Your task to perform on an android device: open wifi settings Image 0: 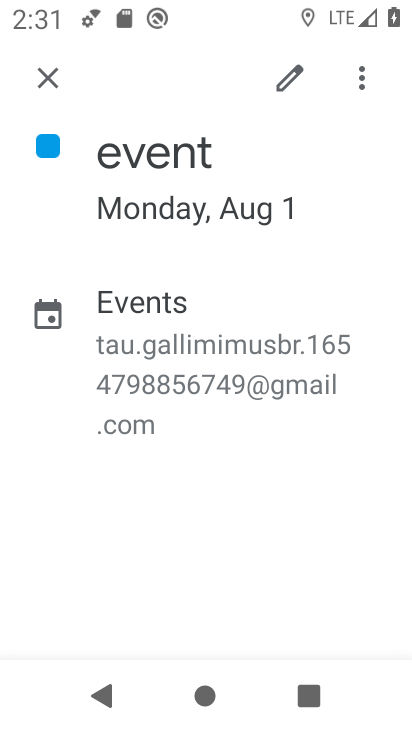
Step 0: press home button
Your task to perform on an android device: open wifi settings Image 1: 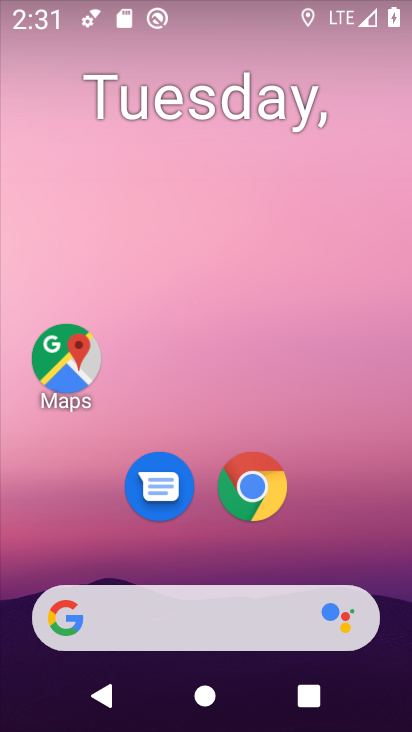
Step 1: drag from (346, 524) to (350, 111)
Your task to perform on an android device: open wifi settings Image 2: 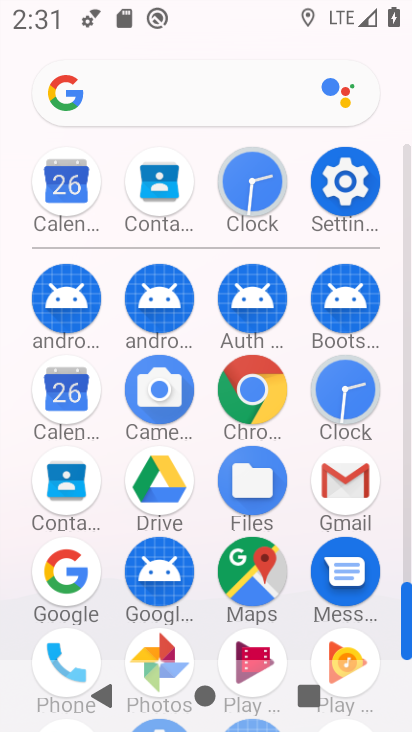
Step 2: click (345, 189)
Your task to perform on an android device: open wifi settings Image 3: 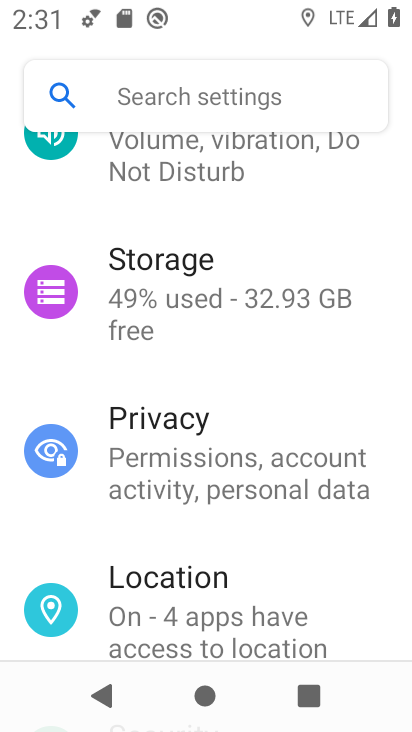
Step 3: drag from (364, 224) to (365, 282)
Your task to perform on an android device: open wifi settings Image 4: 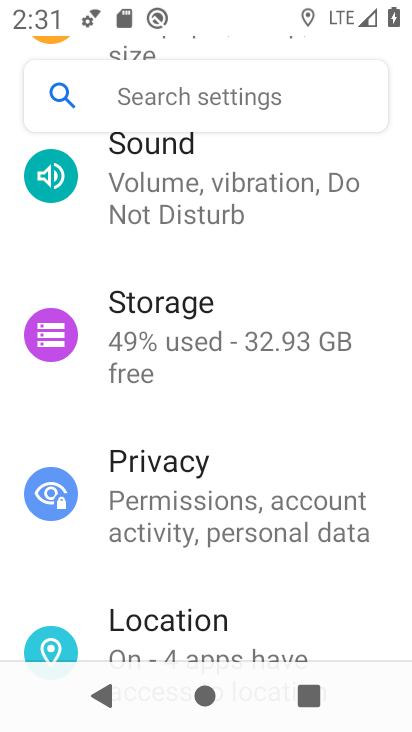
Step 4: drag from (383, 194) to (380, 281)
Your task to perform on an android device: open wifi settings Image 5: 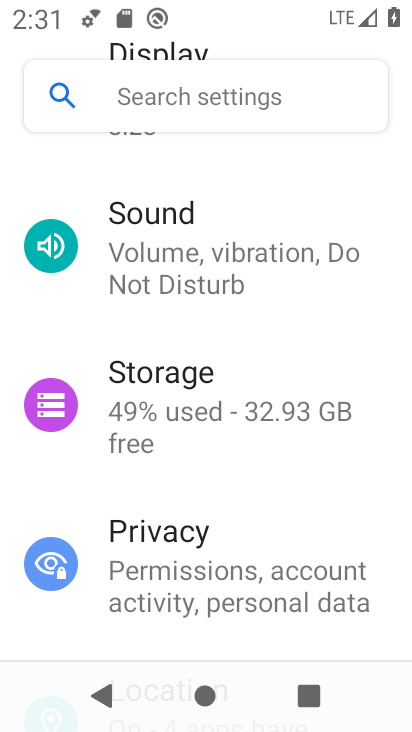
Step 5: drag from (374, 278) to (373, 369)
Your task to perform on an android device: open wifi settings Image 6: 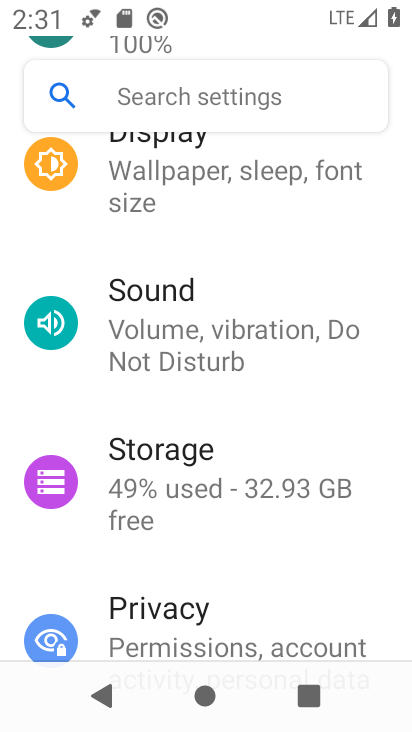
Step 6: drag from (373, 240) to (377, 322)
Your task to perform on an android device: open wifi settings Image 7: 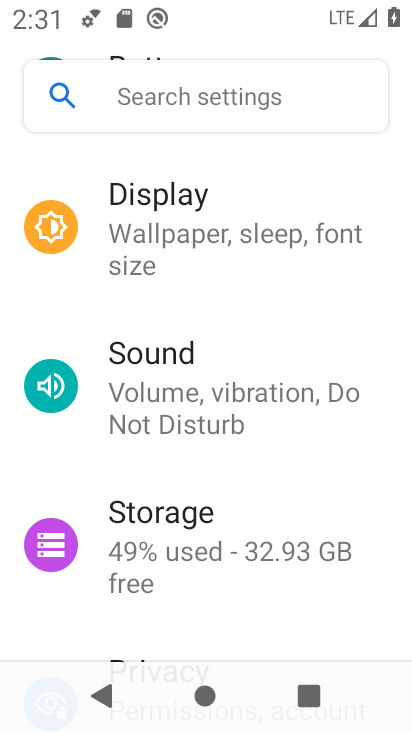
Step 7: drag from (370, 203) to (371, 273)
Your task to perform on an android device: open wifi settings Image 8: 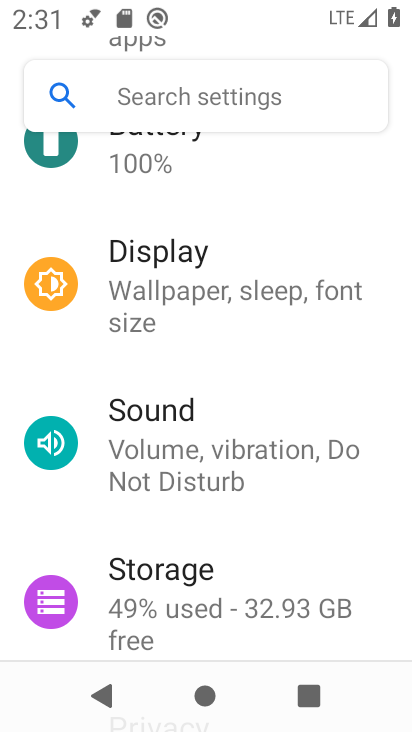
Step 8: drag from (371, 190) to (373, 264)
Your task to perform on an android device: open wifi settings Image 9: 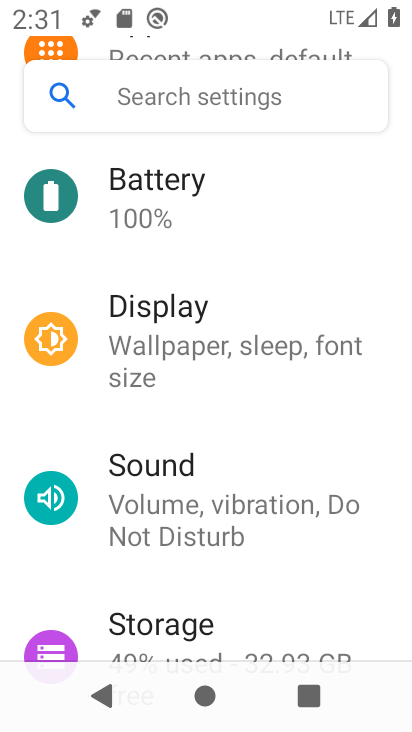
Step 9: drag from (372, 166) to (375, 248)
Your task to perform on an android device: open wifi settings Image 10: 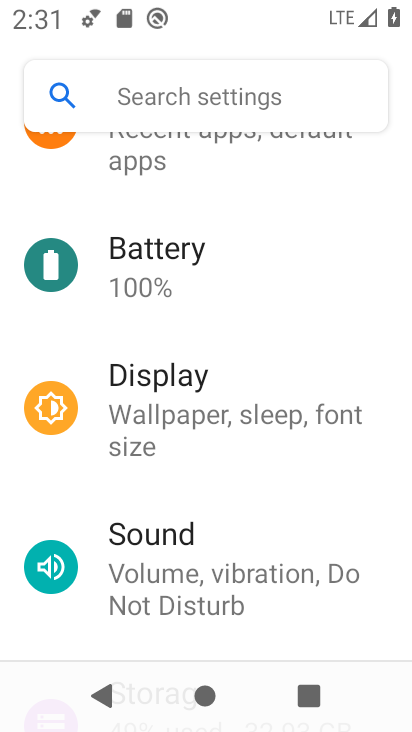
Step 10: drag from (376, 158) to (378, 250)
Your task to perform on an android device: open wifi settings Image 11: 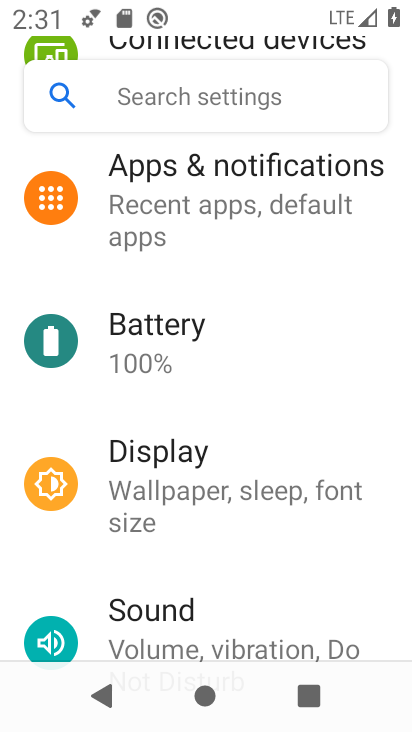
Step 11: drag from (376, 183) to (377, 290)
Your task to perform on an android device: open wifi settings Image 12: 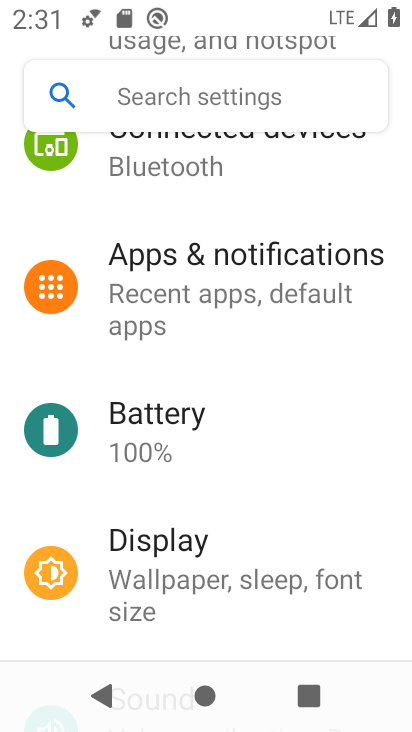
Step 12: drag from (366, 171) to (367, 291)
Your task to perform on an android device: open wifi settings Image 13: 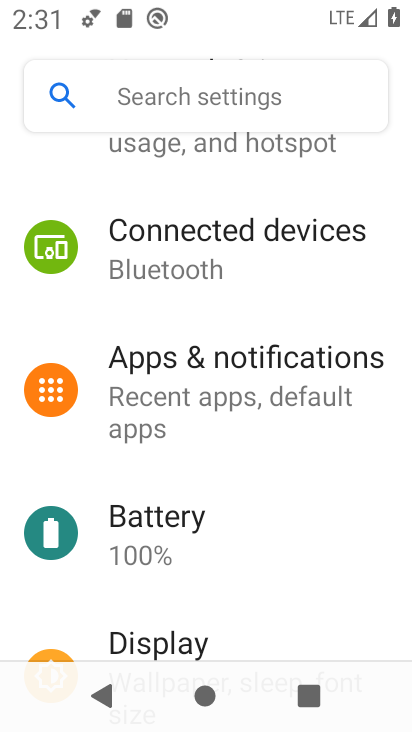
Step 13: drag from (365, 168) to (365, 301)
Your task to perform on an android device: open wifi settings Image 14: 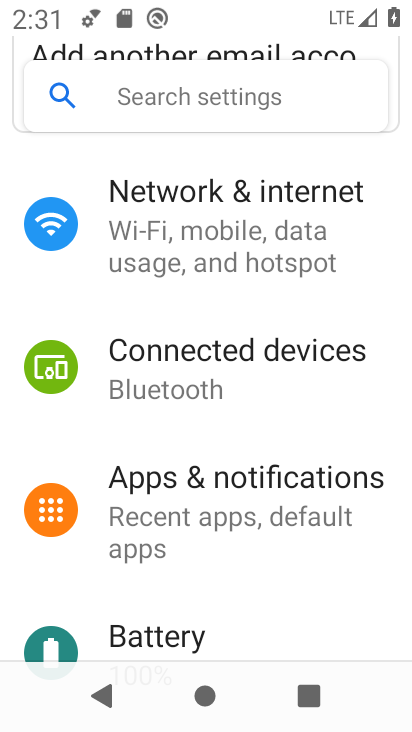
Step 14: drag from (362, 161) to (366, 297)
Your task to perform on an android device: open wifi settings Image 15: 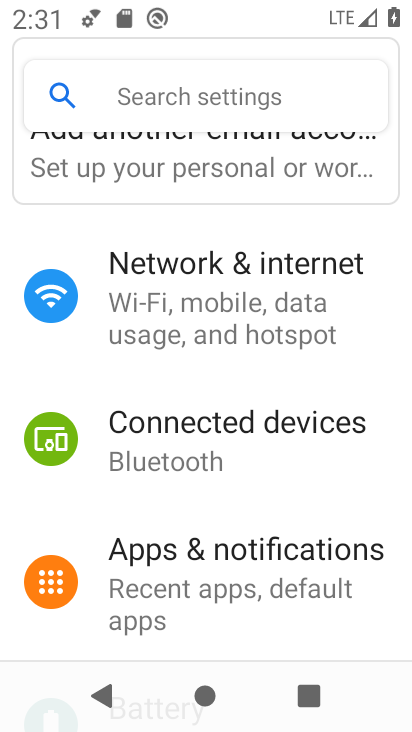
Step 15: click (327, 304)
Your task to perform on an android device: open wifi settings Image 16: 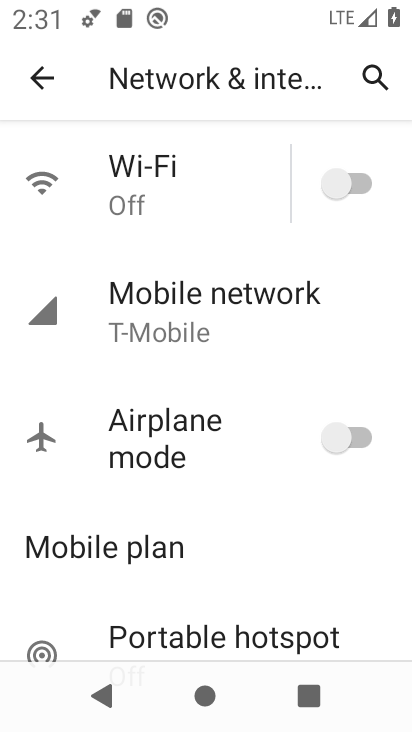
Step 16: click (170, 180)
Your task to perform on an android device: open wifi settings Image 17: 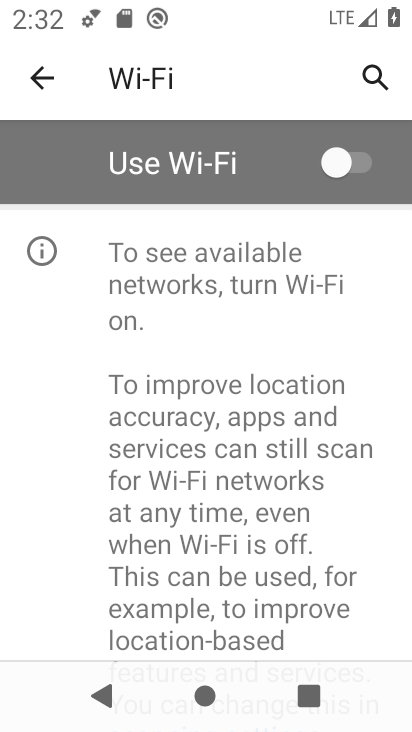
Step 17: task complete